Your task to perform on an android device: change your default location settings in chrome Image 0: 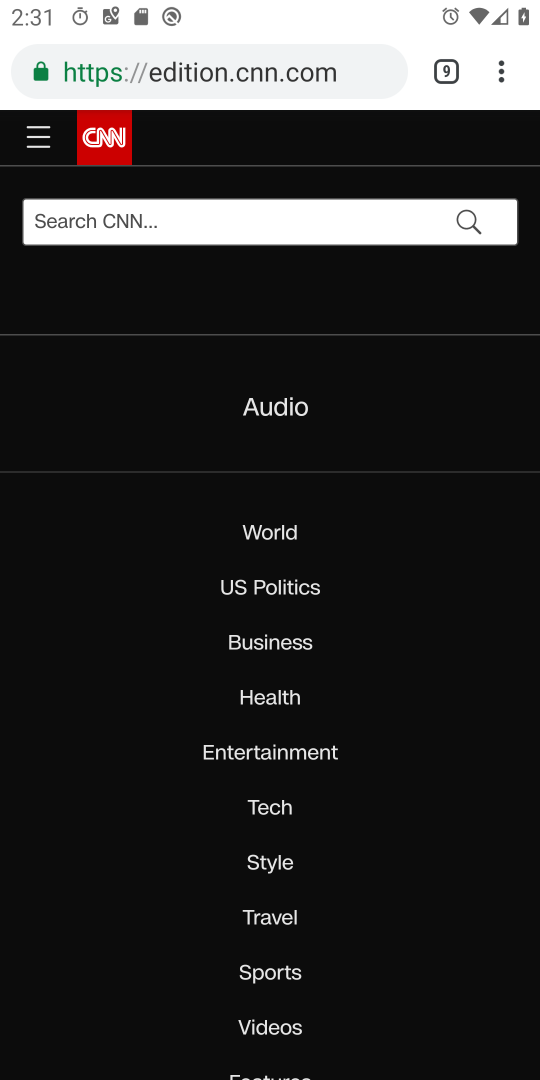
Step 0: click (504, 65)
Your task to perform on an android device: change your default location settings in chrome Image 1: 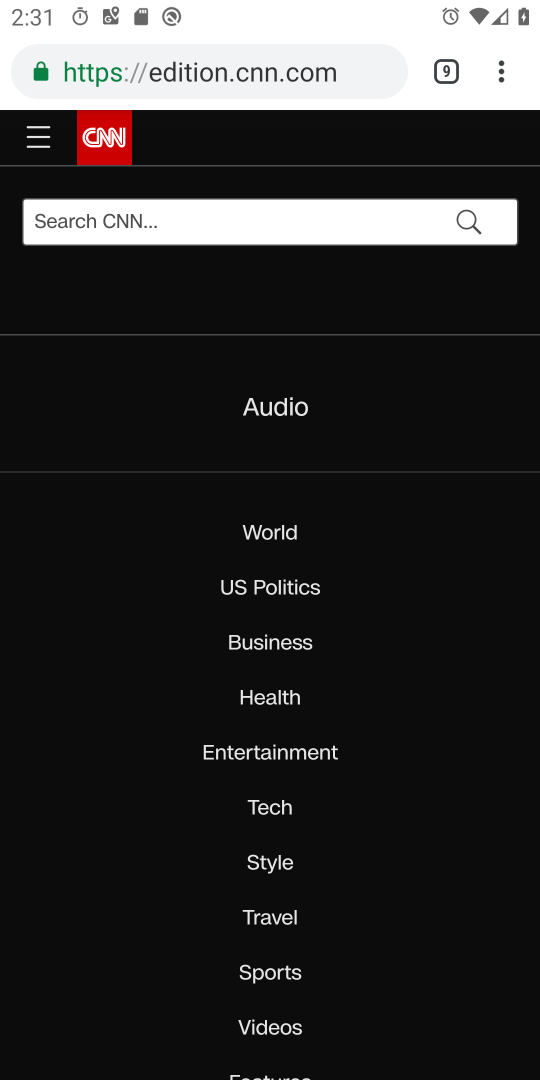
Step 1: click (501, 89)
Your task to perform on an android device: change your default location settings in chrome Image 2: 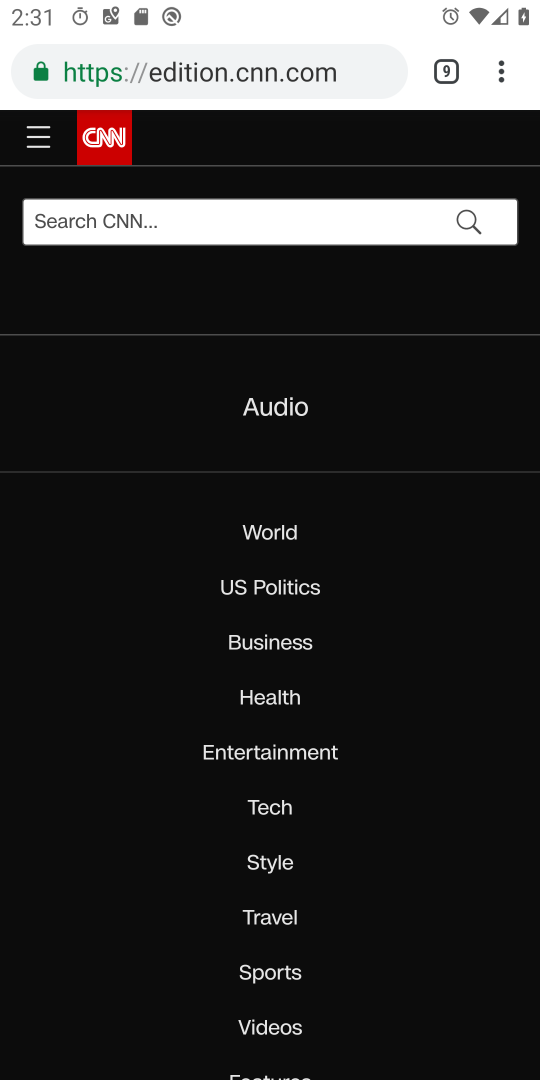
Step 2: drag from (501, 89) to (257, 849)
Your task to perform on an android device: change your default location settings in chrome Image 3: 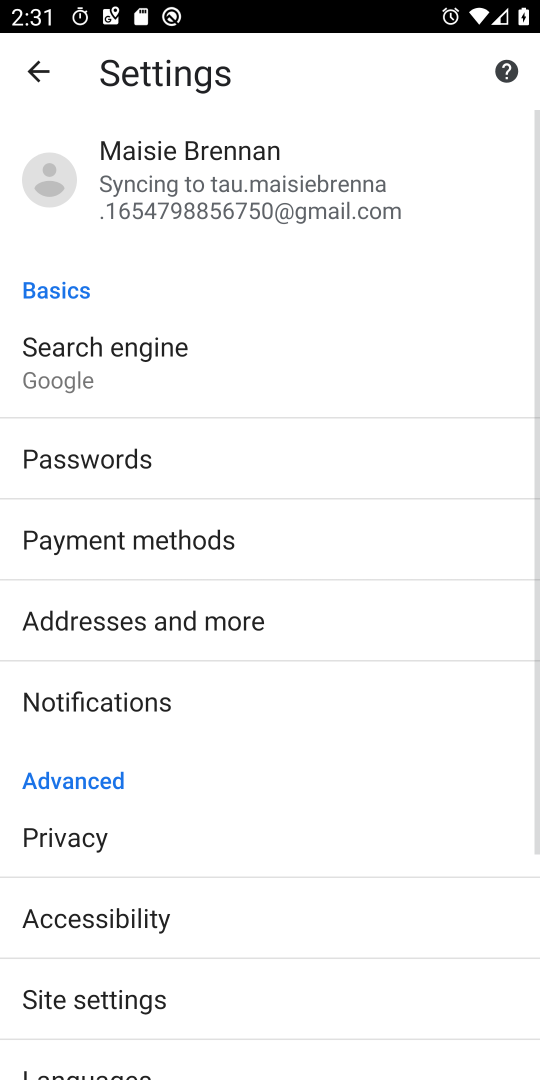
Step 3: drag from (226, 941) to (279, 567)
Your task to perform on an android device: change your default location settings in chrome Image 4: 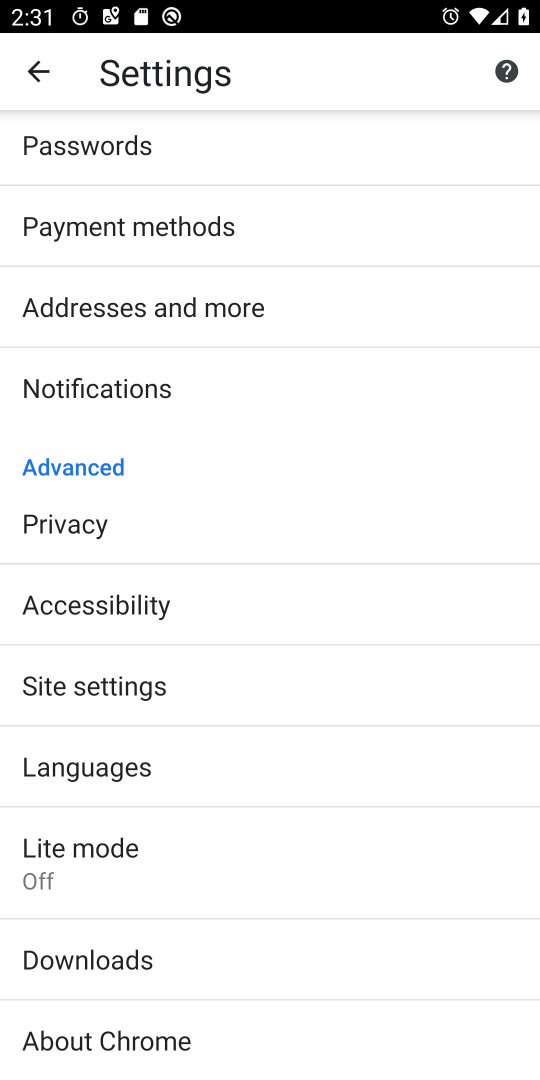
Step 4: drag from (169, 975) to (186, 549)
Your task to perform on an android device: change your default location settings in chrome Image 5: 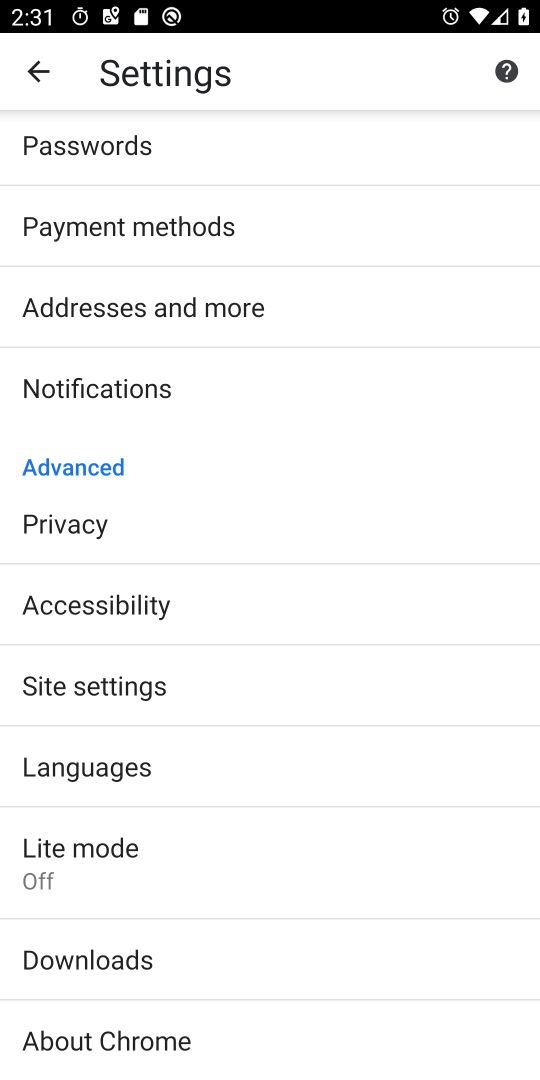
Step 5: click (113, 708)
Your task to perform on an android device: change your default location settings in chrome Image 6: 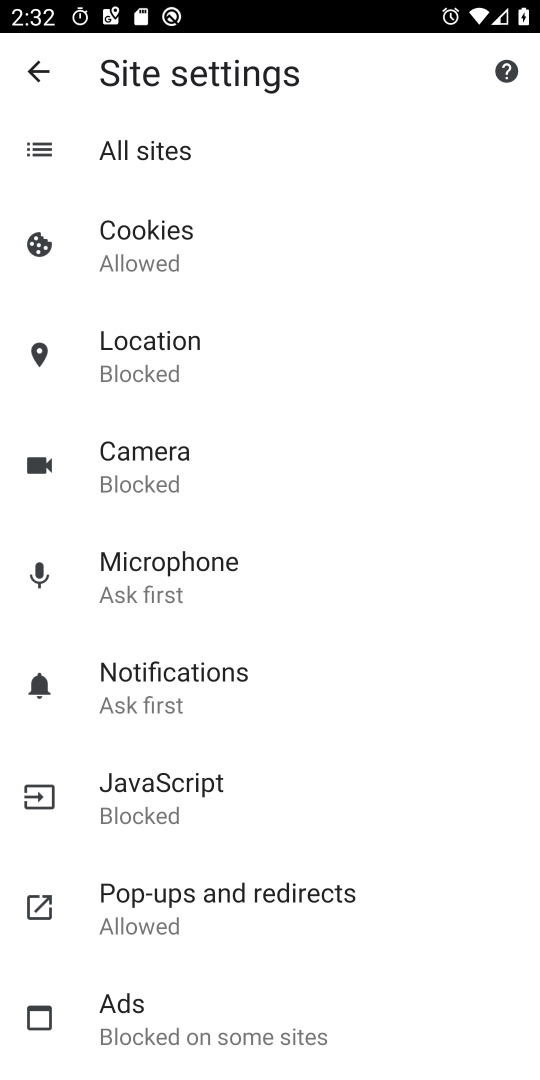
Step 6: click (173, 375)
Your task to perform on an android device: change your default location settings in chrome Image 7: 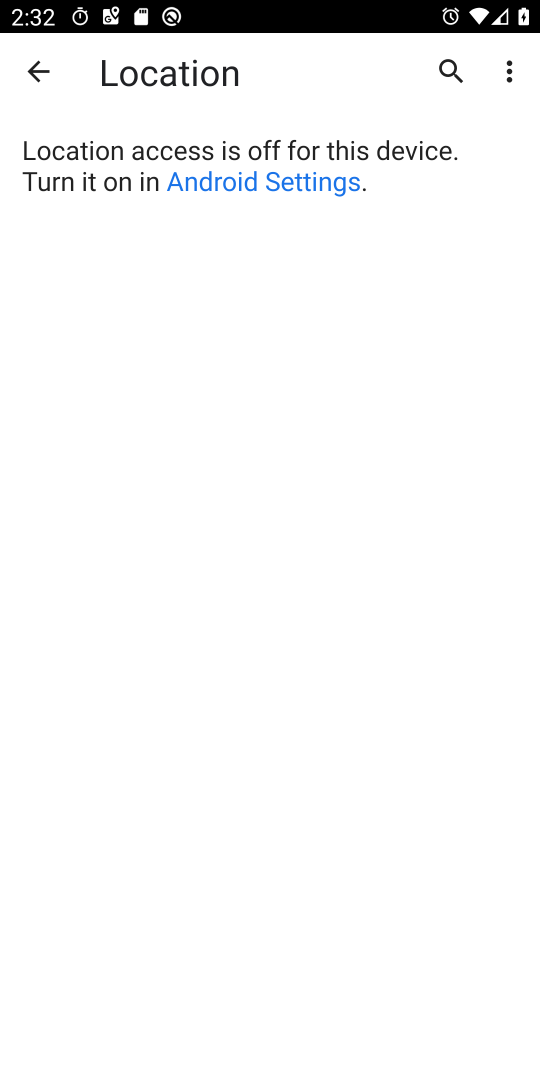
Step 7: task complete